Your task to perform on an android device: Open Google Chrome and click the shortcut for Amazon.com Image 0: 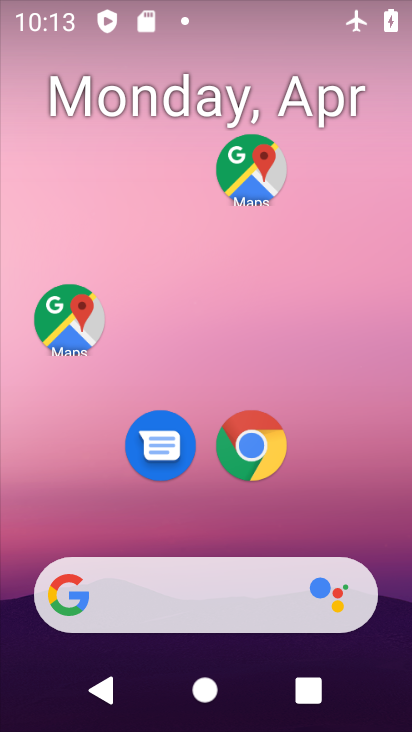
Step 0: drag from (231, 512) to (207, 87)
Your task to perform on an android device: Open Google Chrome and click the shortcut for Amazon.com Image 1: 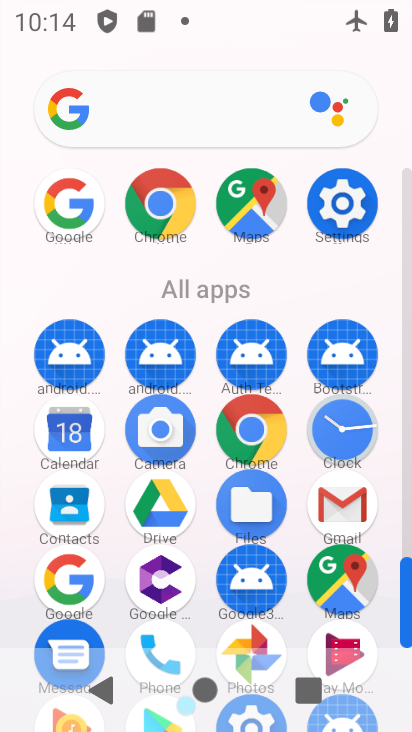
Step 1: click (169, 210)
Your task to perform on an android device: Open Google Chrome and click the shortcut for Amazon.com Image 2: 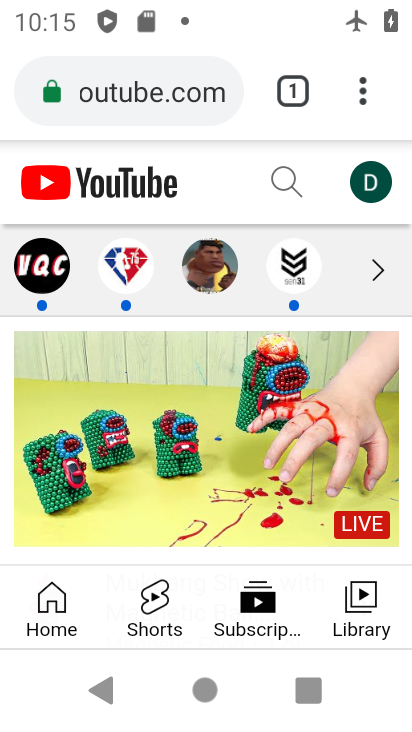
Step 2: click (284, 84)
Your task to perform on an android device: Open Google Chrome and click the shortcut for Amazon.com Image 3: 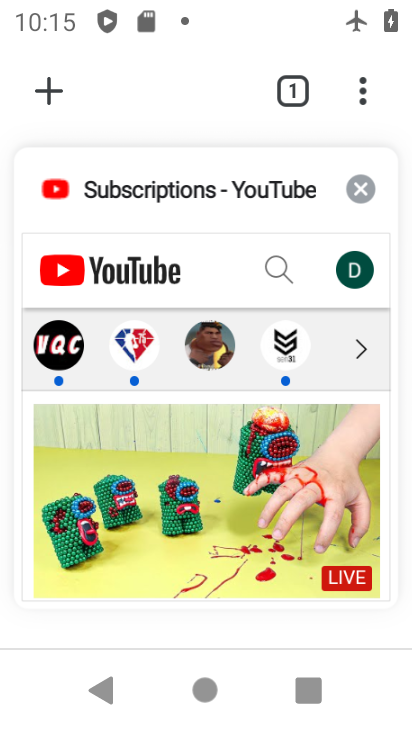
Step 3: click (44, 97)
Your task to perform on an android device: Open Google Chrome and click the shortcut for Amazon.com Image 4: 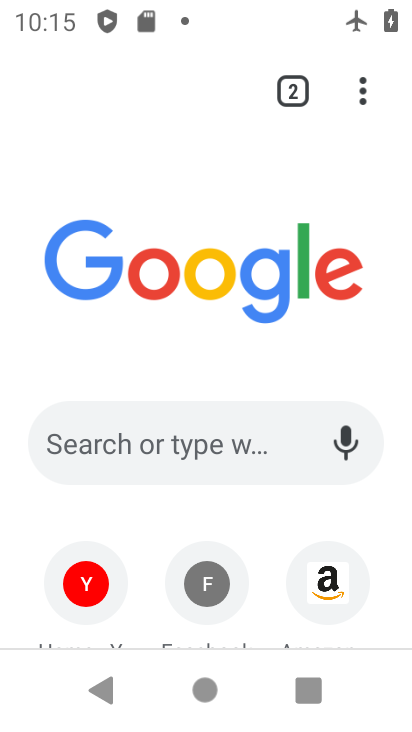
Step 4: click (335, 585)
Your task to perform on an android device: Open Google Chrome and click the shortcut for Amazon.com Image 5: 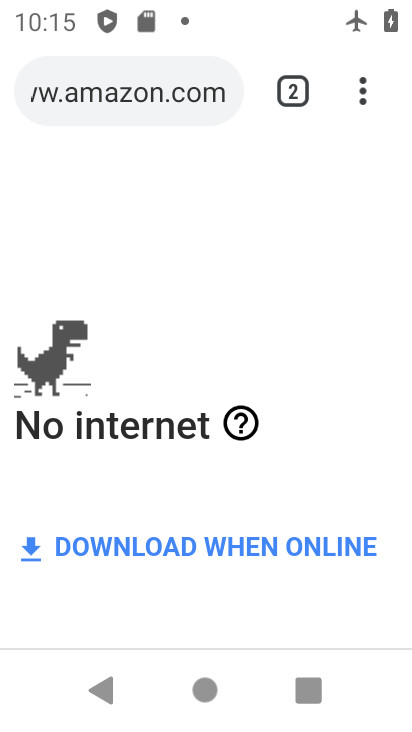
Step 5: task complete